Your task to perform on an android device: see creations saved in the google photos Image 0: 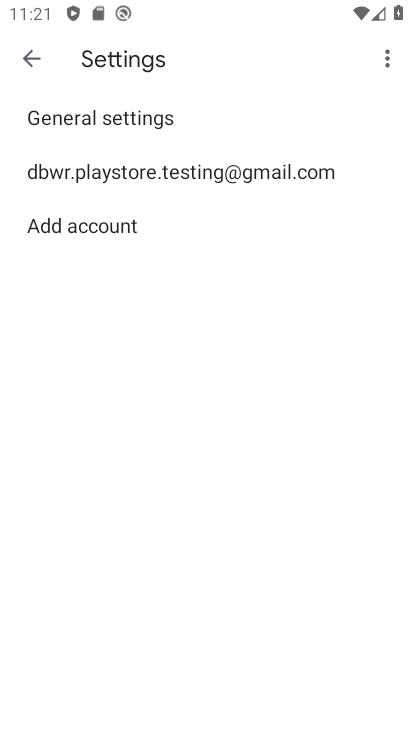
Step 0: press home button
Your task to perform on an android device: see creations saved in the google photos Image 1: 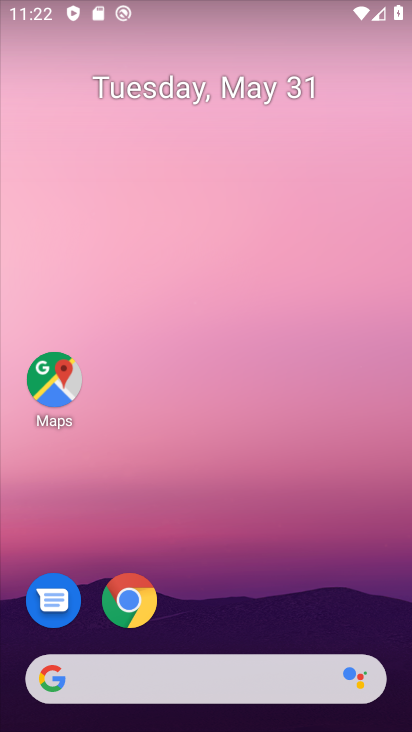
Step 1: drag from (356, 605) to (367, 94)
Your task to perform on an android device: see creations saved in the google photos Image 2: 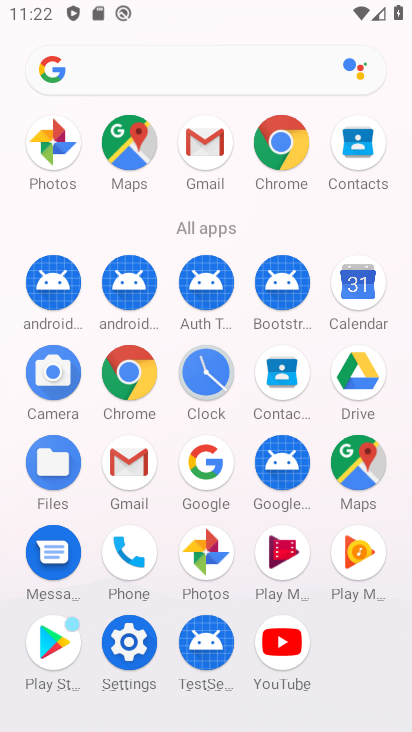
Step 2: click (217, 555)
Your task to perform on an android device: see creations saved in the google photos Image 3: 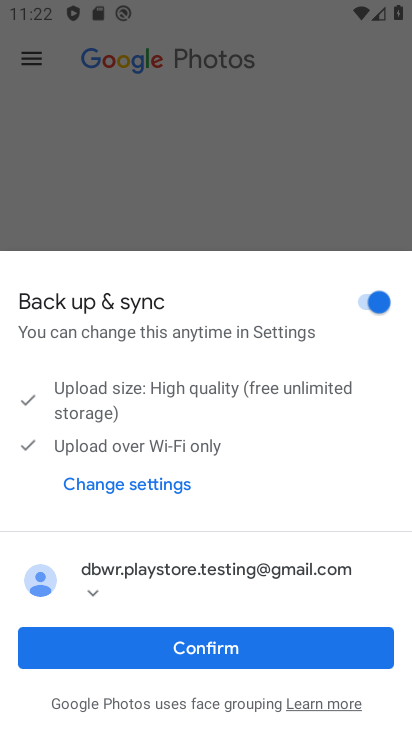
Step 3: click (206, 648)
Your task to perform on an android device: see creations saved in the google photos Image 4: 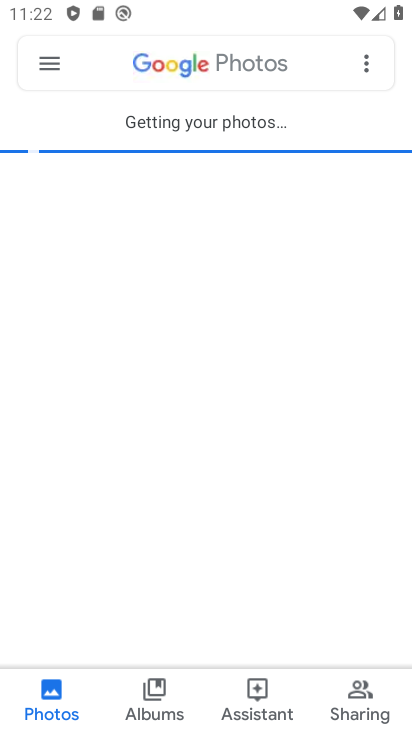
Step 4: click (236, 66)
Your task to perform on an android device: see creations saved in the google photos Image 5: 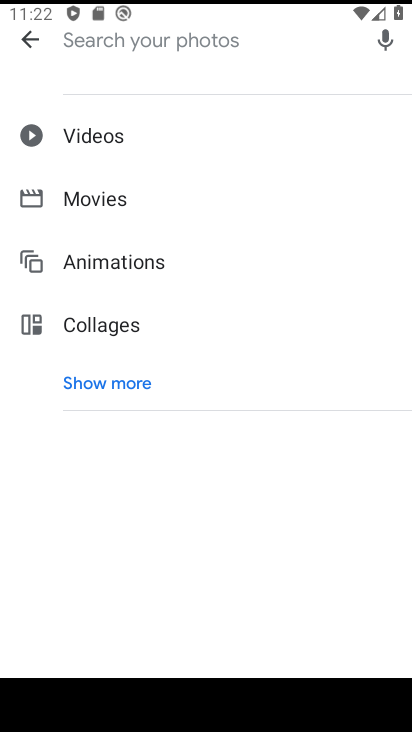
Step 5: click (125, 395)
Your task to perform on an android device: see creations saved in the google photos Image 6: 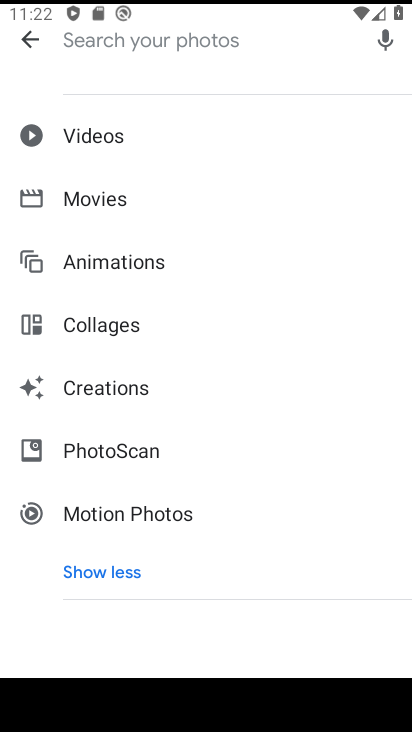
Step 6: click (140, 380)
Your task to perform on an android device: see creations saved in the google photos Image 7: 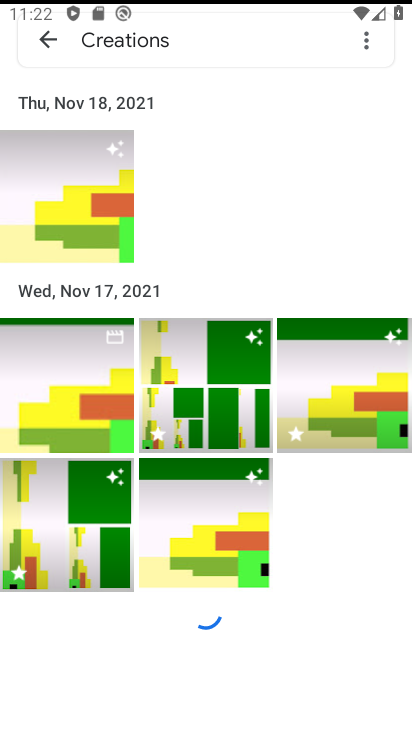
Step 7: task complete